Your task to perform on an android device: Show me popular games on the Play Store Image 0: 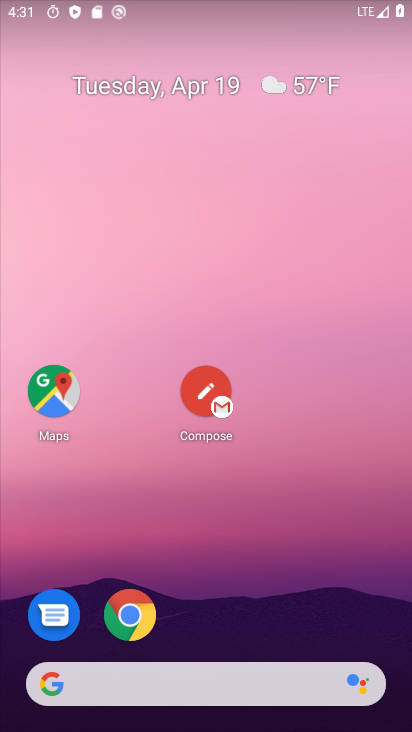
Step 0: drag from (273, 599) to (273, 62)
Your task to perform on an android device: Show me popular games on the Play Store Image 1: 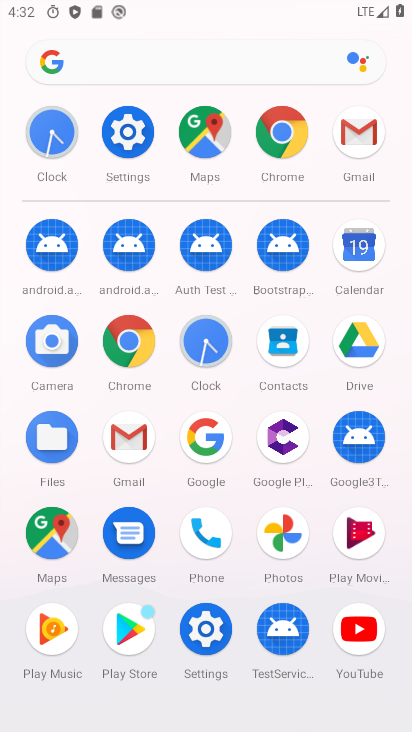
Step 1: drag from (325, 602) to (324, 274)
Your task to perform on an android device: Show me popular games on the Play Store Image 2: 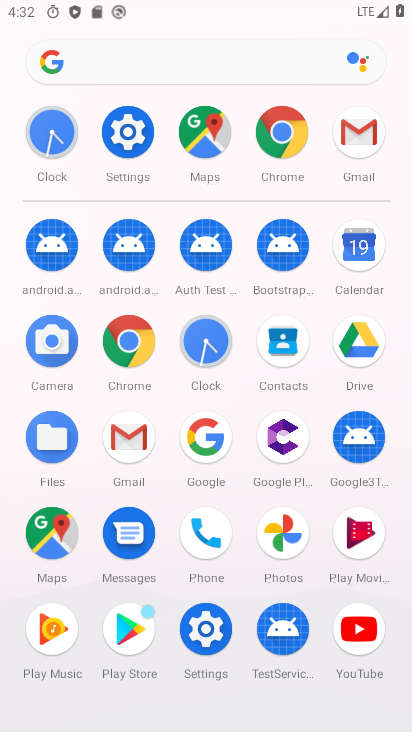
Step 2: click (134, 609)
Your task to perform on an android device: Show me popular games on the Play Store Image 3: 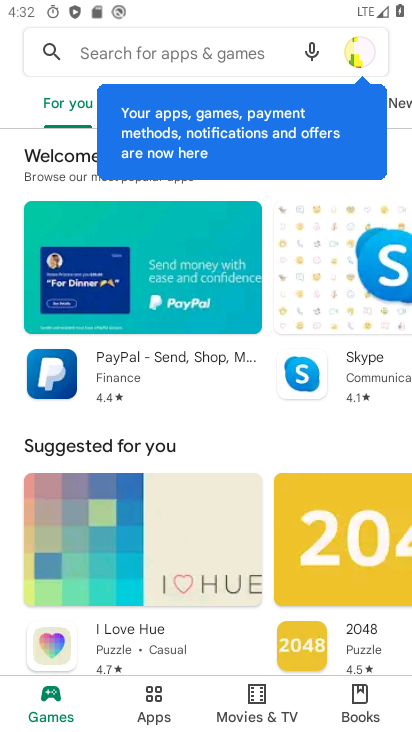
Step 3: drag from (277, 643) to (244, 79)
Your task to perform on an android device: Show me popular games on the Play Store Image 4: 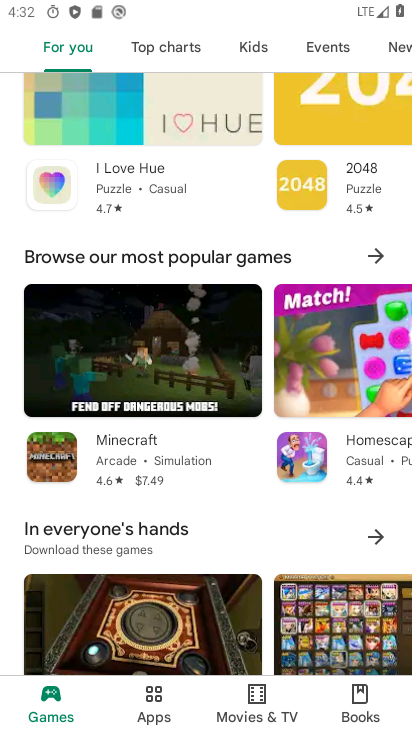
Step 4: drag from (376, 362) to (2, 428)
Your task to perform on an android device: Show me popular games on the Play Store Image 5: 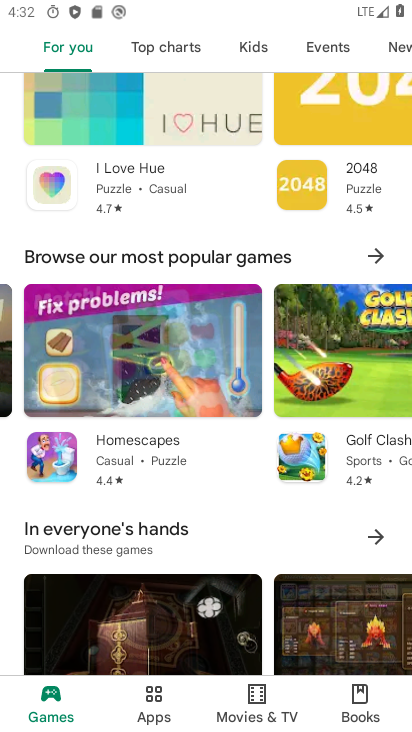
Step 5: drag from (381, 371) to (14, 457)
Your task to perform on an android device: Show me popular games on the Play Store Image 6: 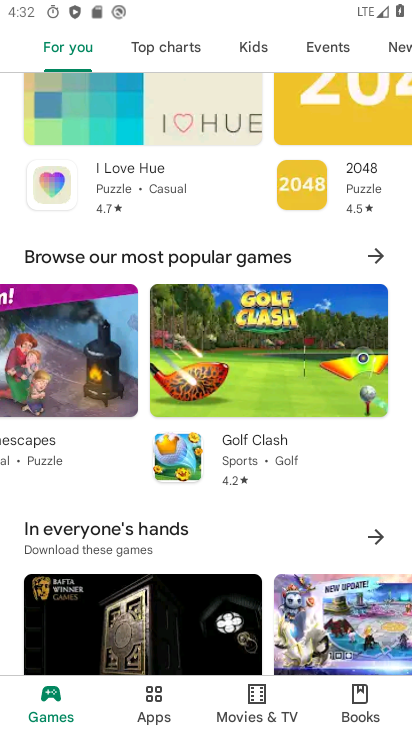
Step 6: click (376, 250)
Your task to perform on an android device: Show me popular games on the Play Store Image 7: 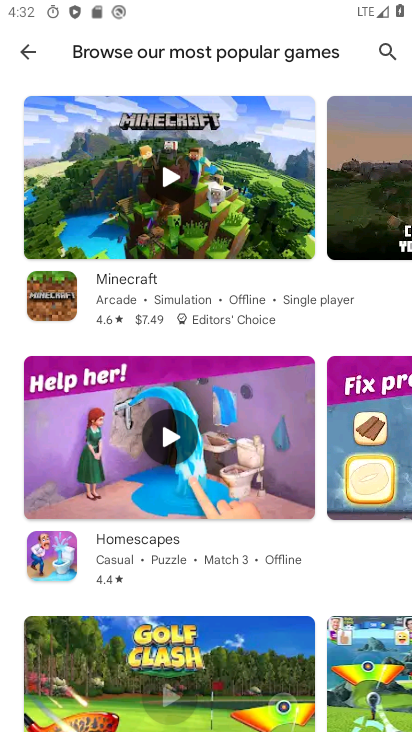
Step 7: task complete